Your task to perform on an android device: Open Google Chrome and click the shortcut for Amazon.com Image 0: 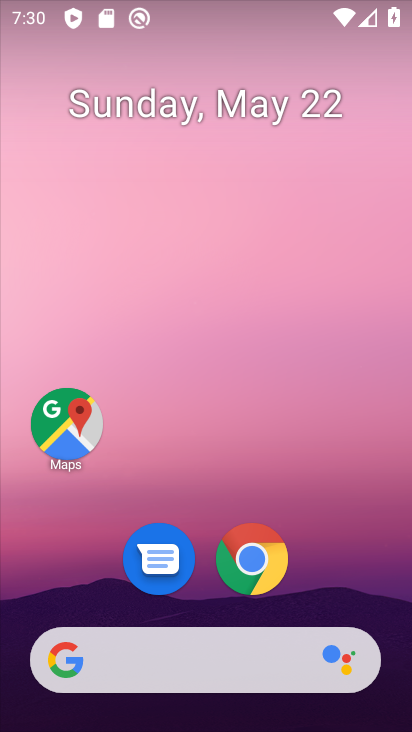
Step 0: click (262, 562)
Your task to perform on an android device: Open Google Chrome and click the shortcut for Amazon.com Image 1: 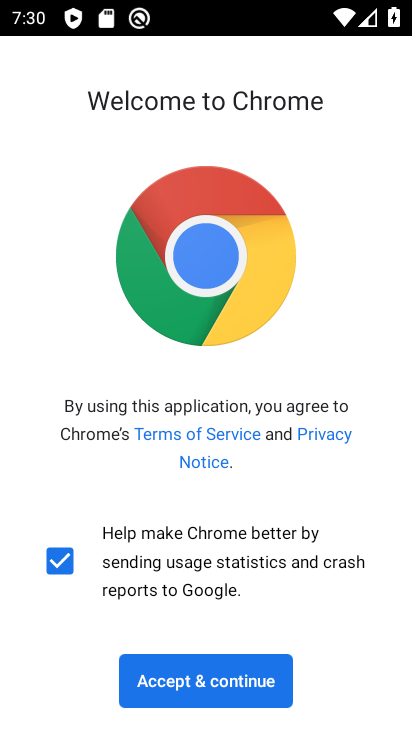
Step 1: click (240, 682)
Your task to perform on an android device: Open Google Chrome and click the shortcut for Amazon.com Image 2: 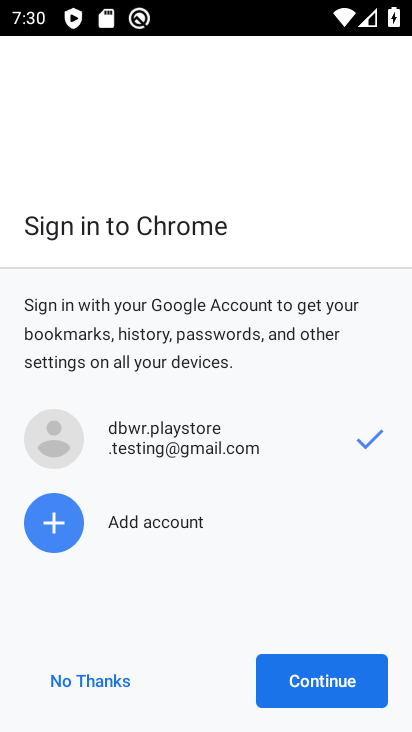
Step 2: click (303, 680)
Your task to perform on an android device: Open Google Chrome and click the shortcut for Amazon.com Image 3: 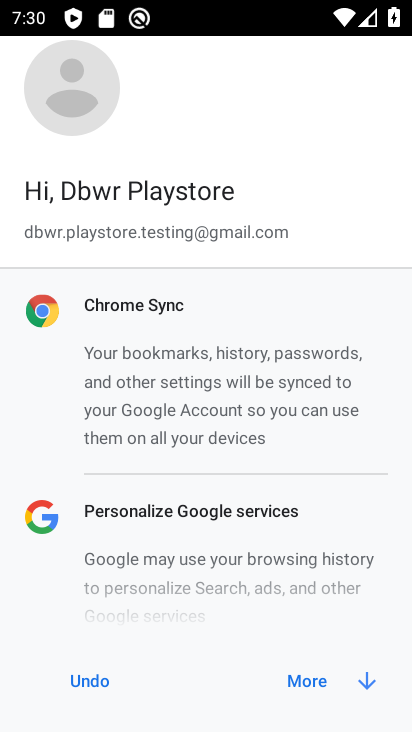
Step 3: click (303, 679)
Your task to perform on an android device: Open Google Chrome and click the shortcut for Amazon.com Image 4: 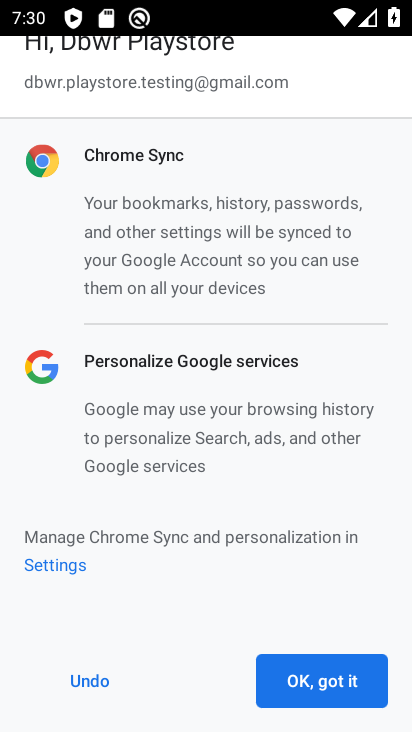
Step 4: click (303, 680)
Your task to perform on an android device: Open Google Chrome and click the shortcut for Amazon.com Image 5: 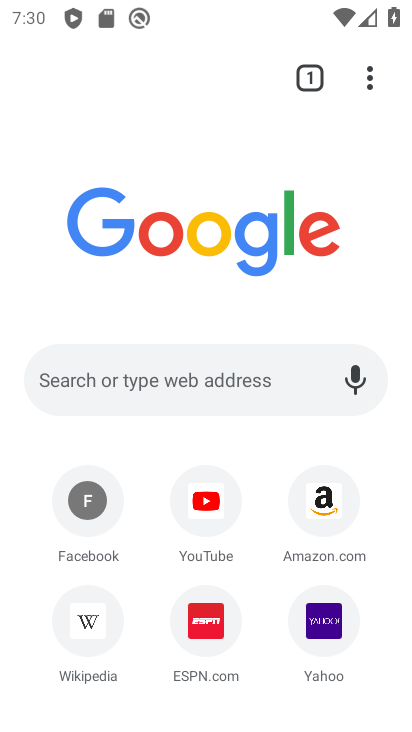
Step 5: click (335, 497)
Your task to perform on an android device: Open Google Chrome and click the shortcut for Amazon.com Image 6: 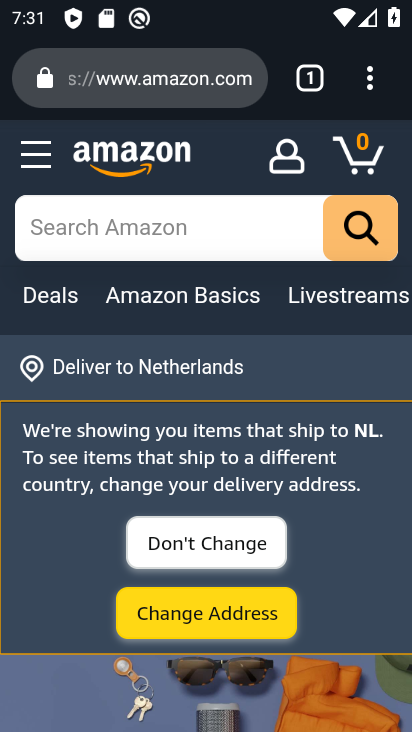
Step 6: task complete